Your task to perform on an android device: Open Chrome and go to the settings page Image 0: 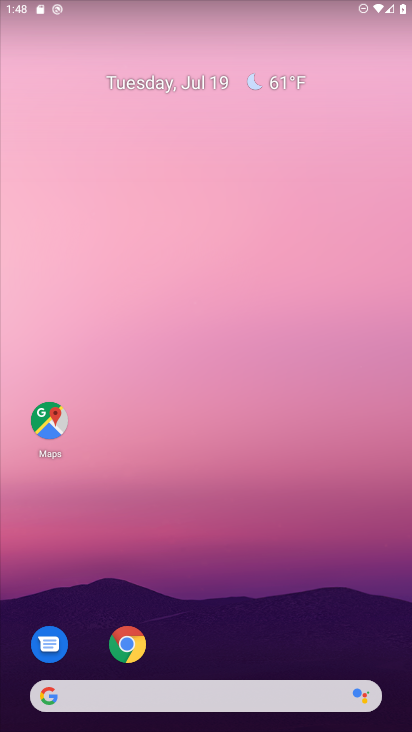
Step 0: click (129, 650)
Your task to perform on an android device: Open Chrome and go to the settings page Image 1: 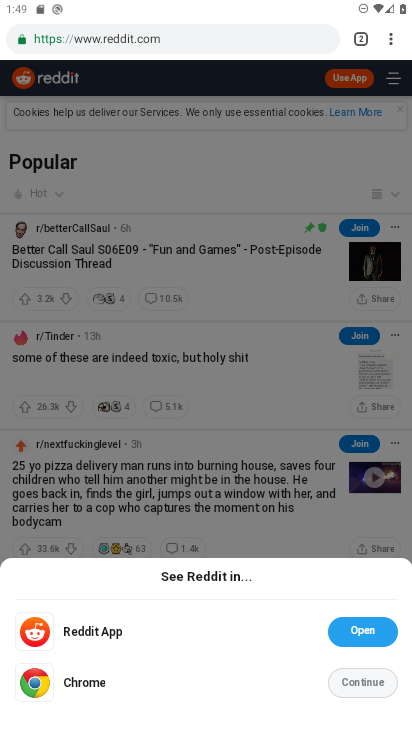
Step 1: click (350, 676)
Your task to perform on an android device: Open Chrome and go to the settings page Image 2: 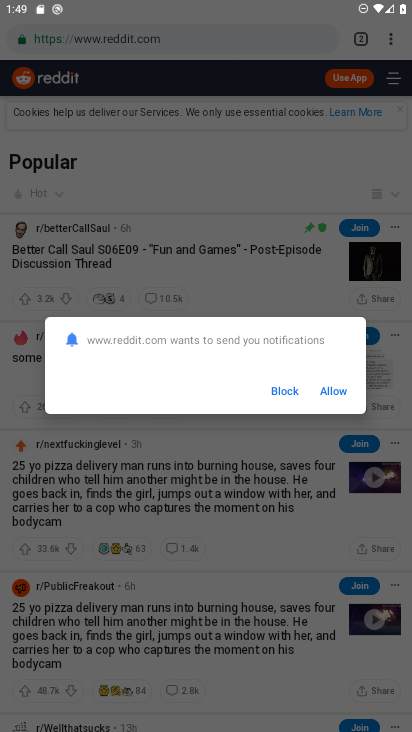
Step 2: click (391, 35)
Your task to perform on an android device: Open Chrome and go to the settings page Image 3: 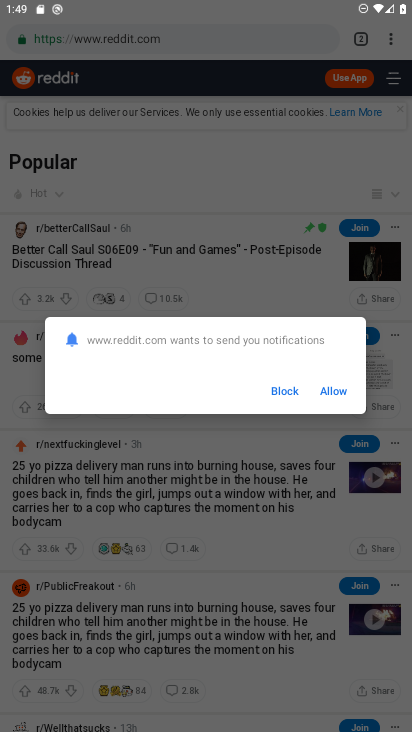
Step 3: click (341, 398)
Your task to perform on an android device: Open Chrome and go to the settings page Image 4: 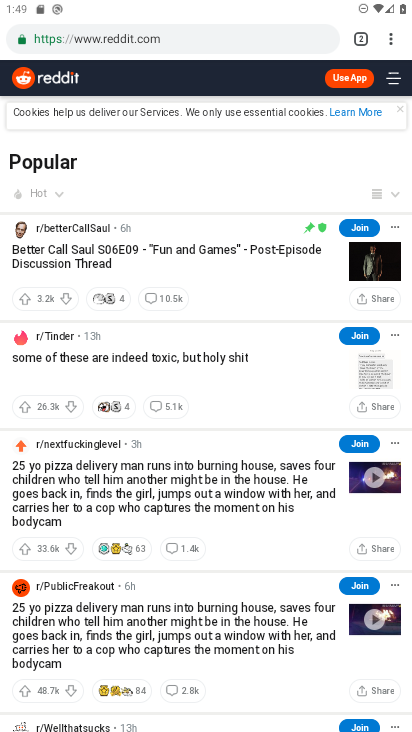
Step 4: task complete